Your task to perform on an android device: uninstall "Speedtest by Ookla" Image 0: 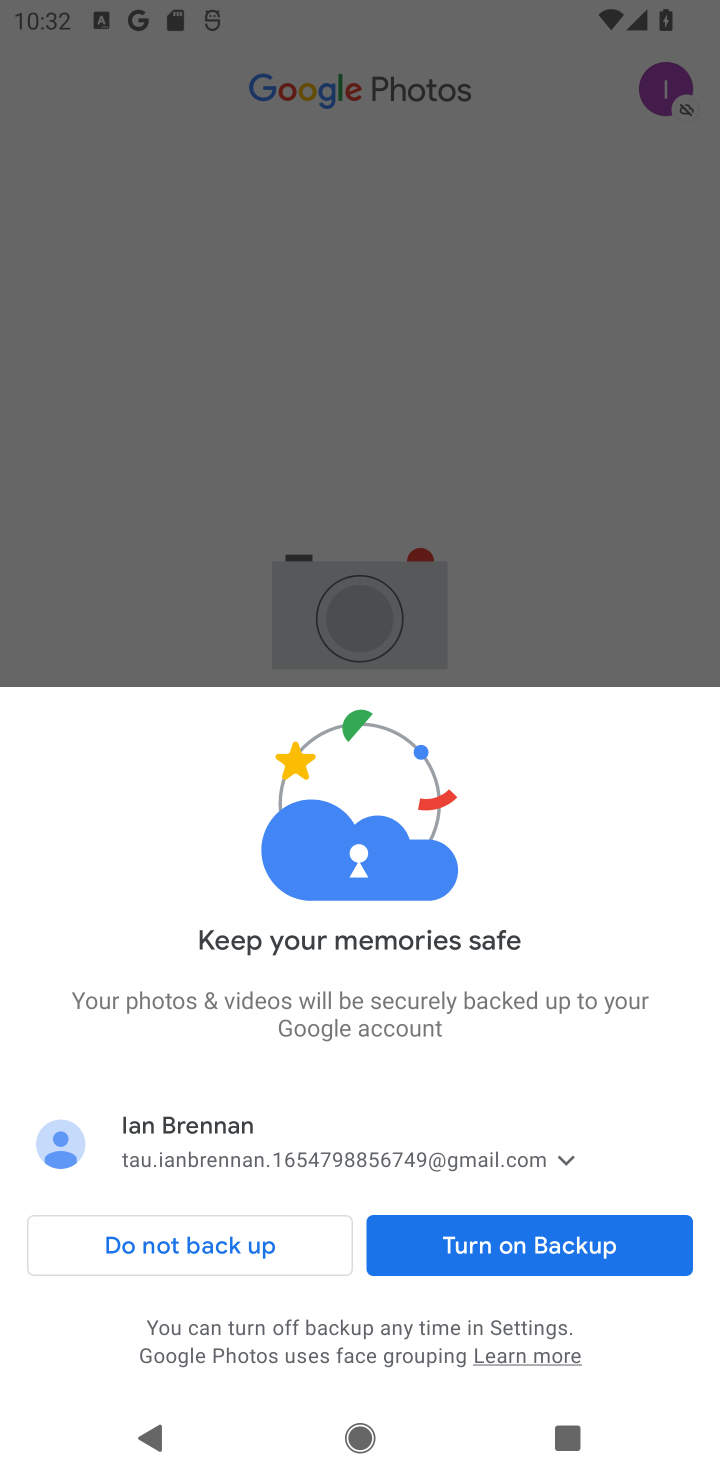
Step 0: press home button
Your task to perform on an android device: uninstall "Speedtest by Ookla" Image 1: 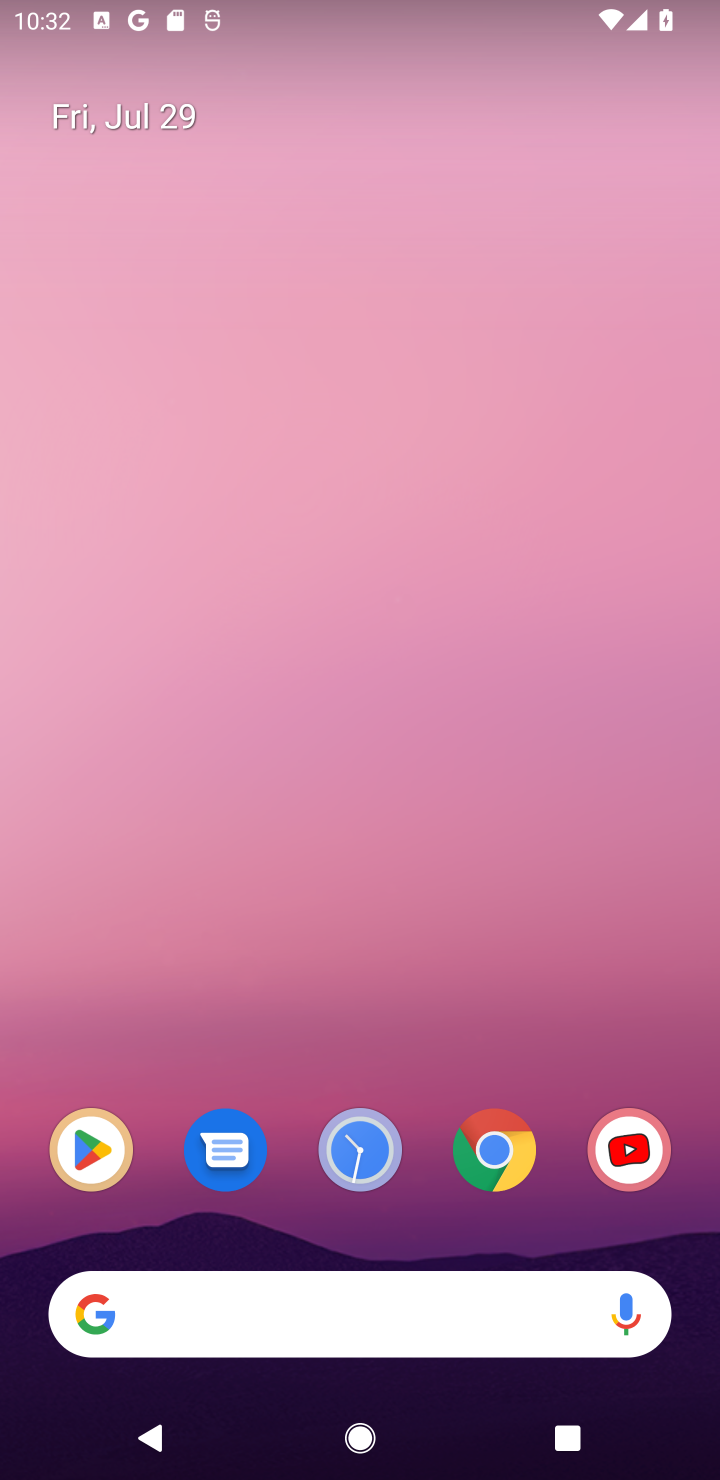
Step 1: click (89, 1157)
Your task to perform on an android device: uninstall "Speedtest by Ookla" Image 2: 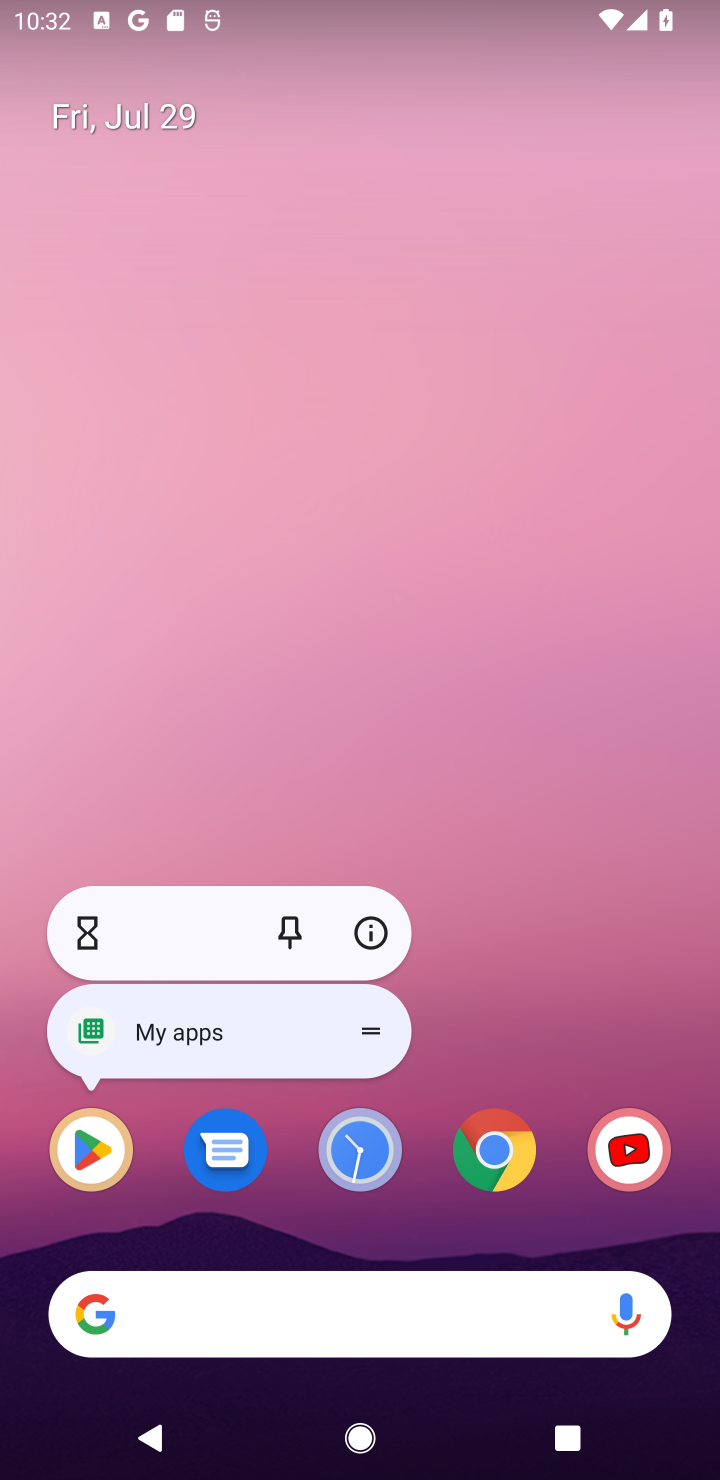
Step 2: click (103, 1154)
Your task to perform on an android device: uninstall "Speedtest by Ookla" Image 3: 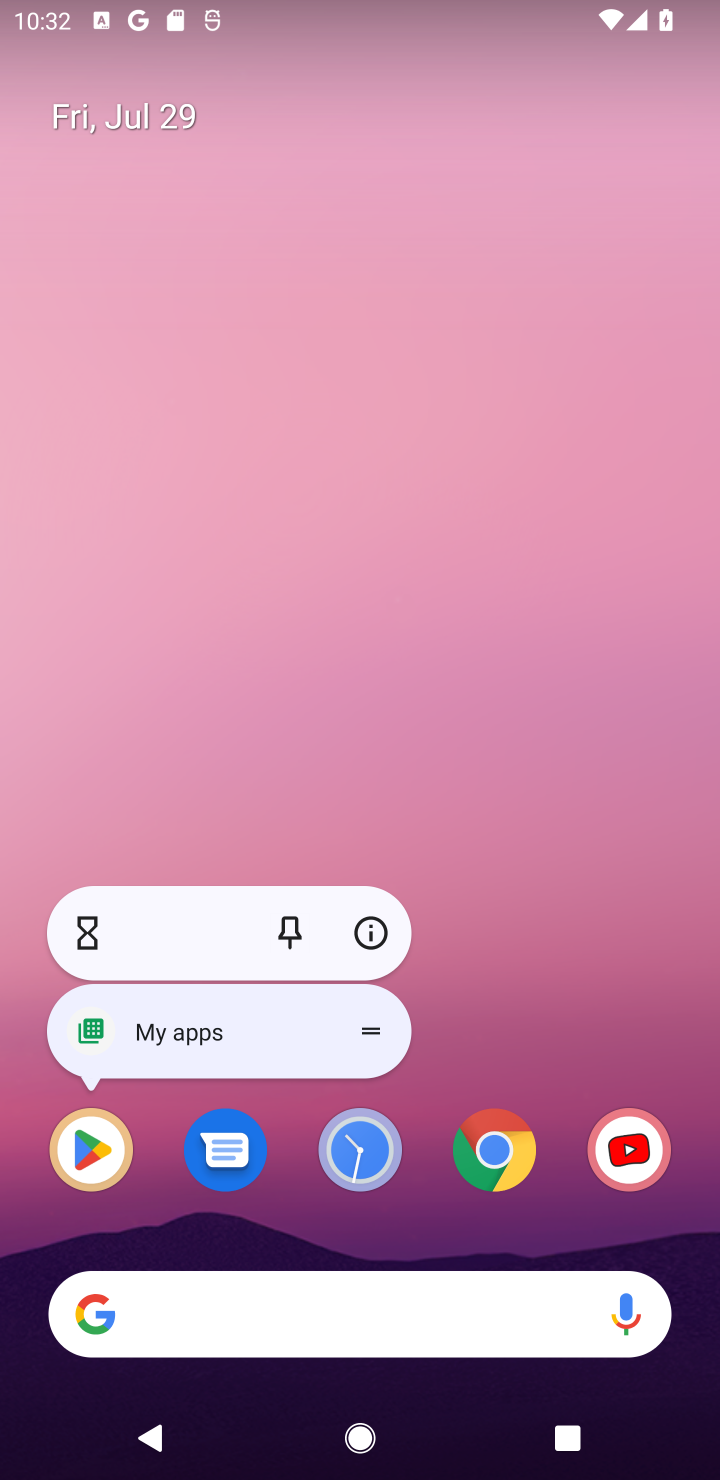
Step 3: click (103, 1154)
Your task to perform on an android device: uninstall "Speedtest by Ookla" Image 4: 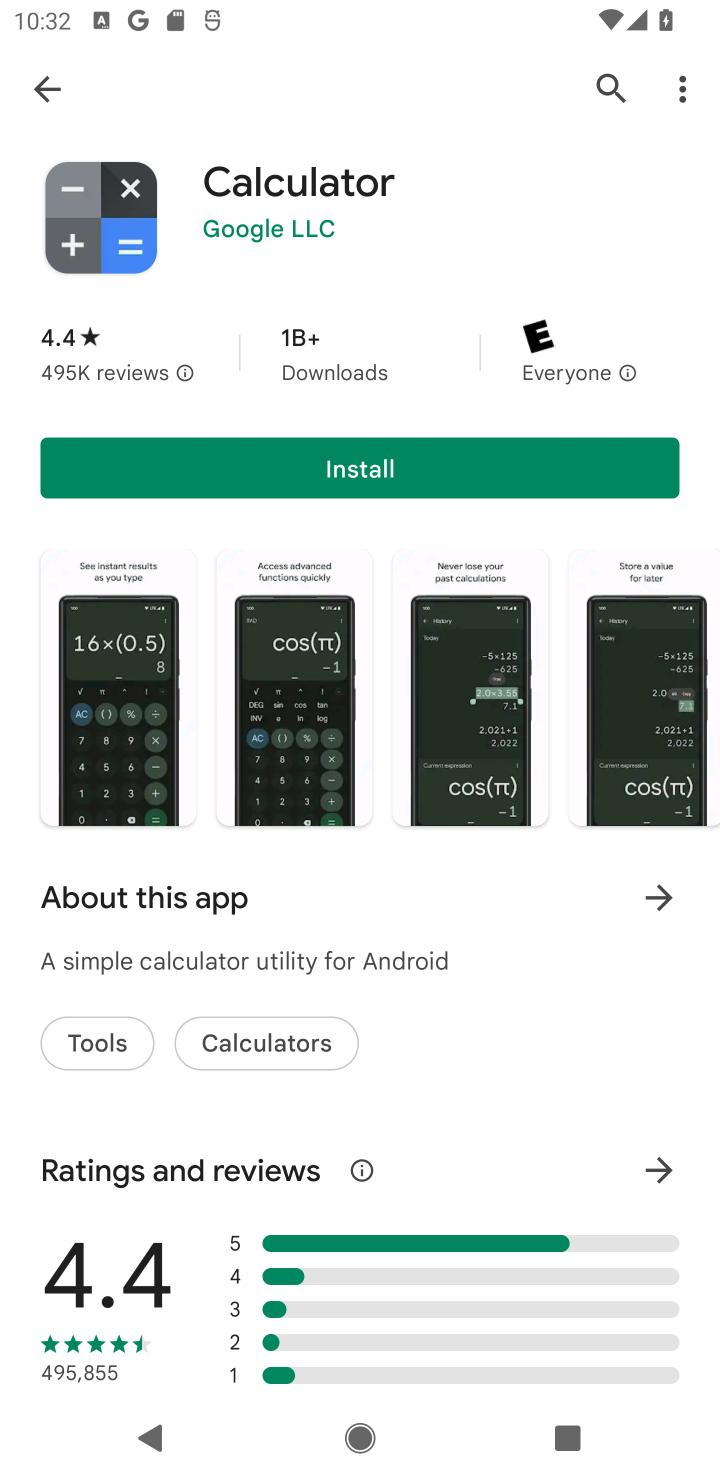
Step 4: click (619, 66)
Your task to perform on an android device: uninstall "Speedtest by Ookla" Image 5: 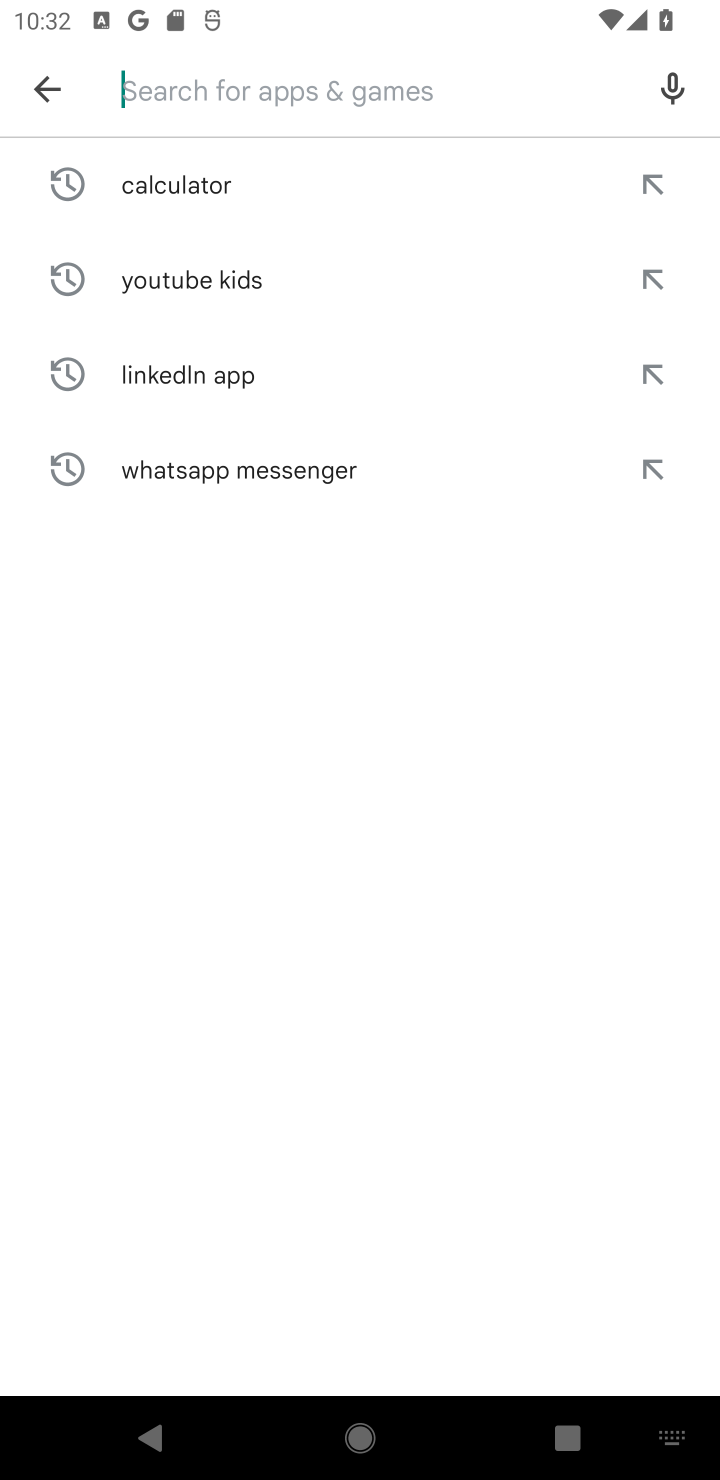
Step 5: click (320, 105)
Your task to perform on an android device: uninstall "Speedtest by Ookla" Image 6: 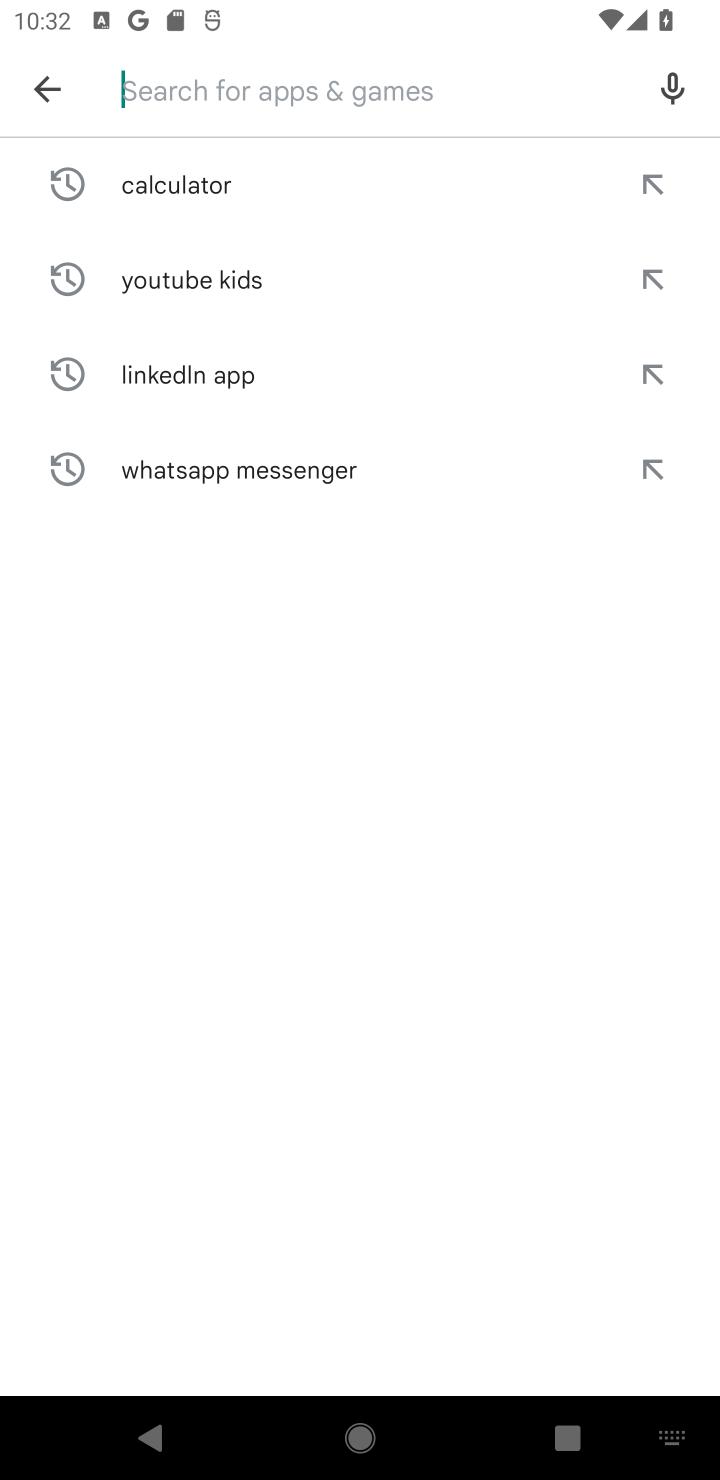
Step 6: type "speedtest"
Your task to perform on an android device: uninstall "Speedtest by Ookla" Image 7: 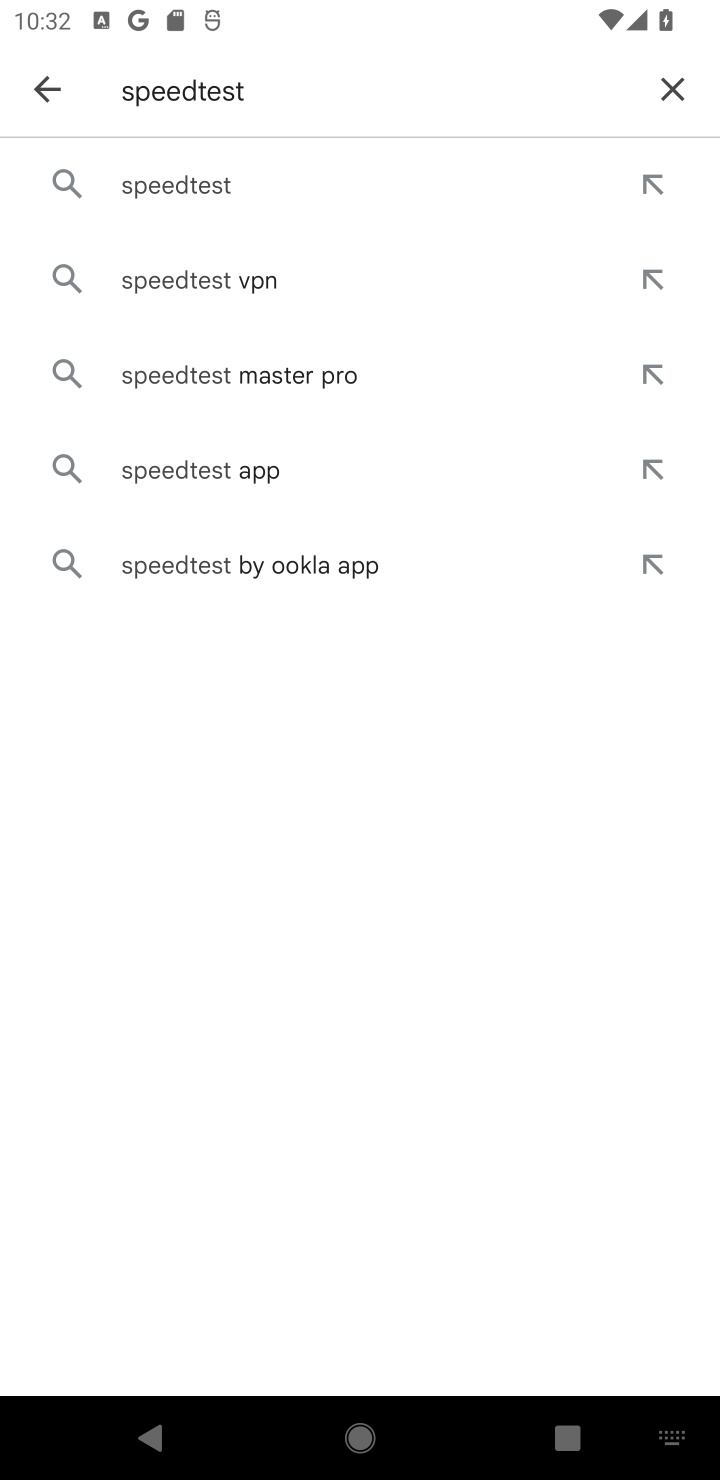
Step 7: click (262, 564)
Your task to perform on an android device: uninstall "Speedtest by Ookla" Image 8: 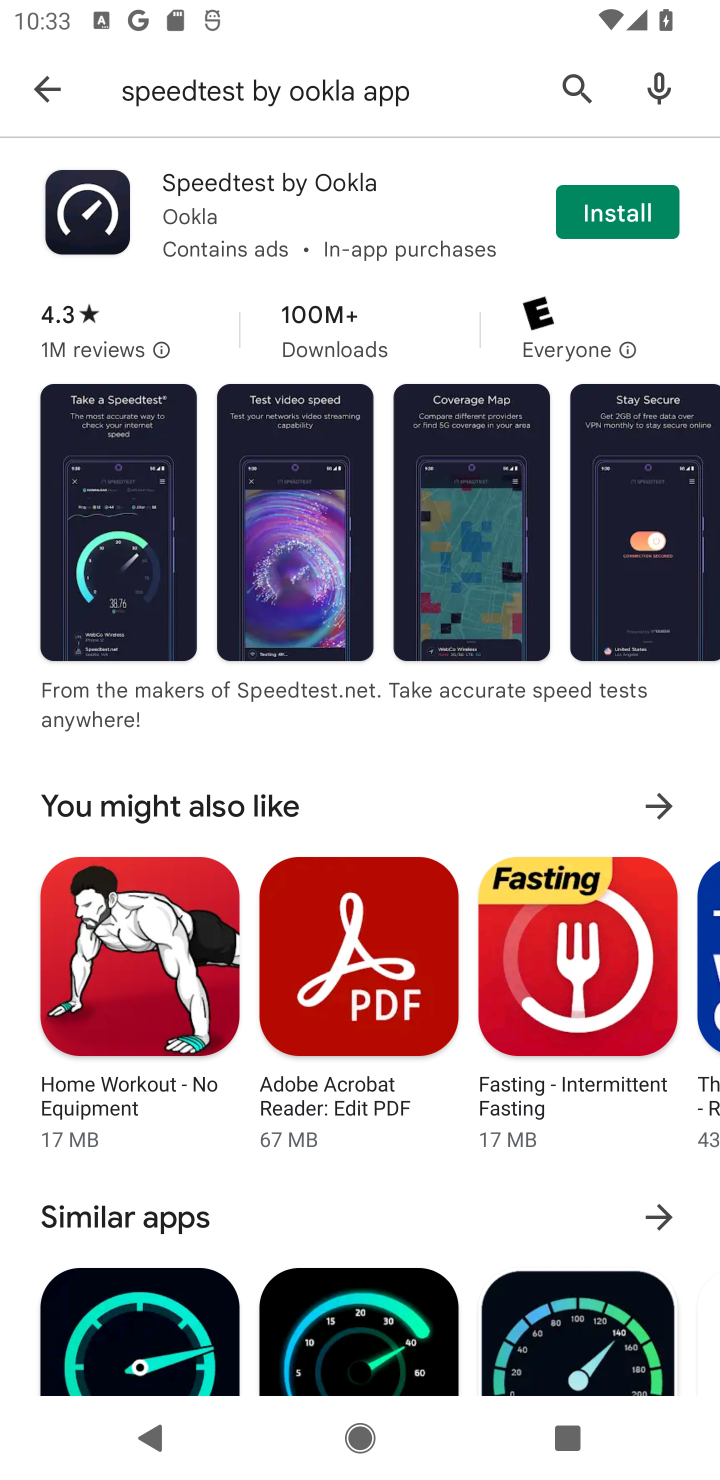
Step 8: task complete